Your task to perform on an android device: turn off sleep mode Image 0: 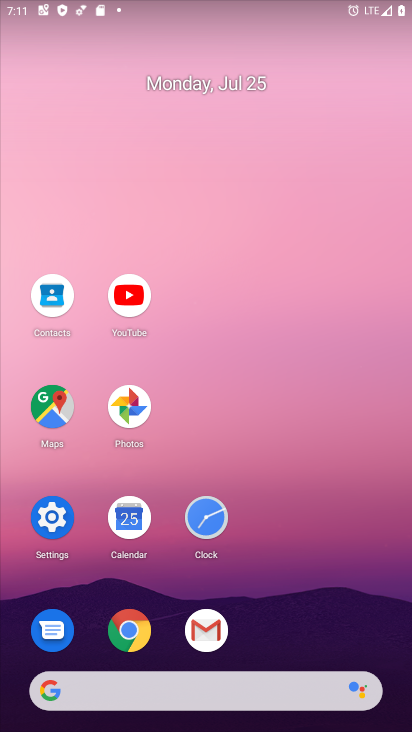
Step 0: click (44, 511)
Your task to perform on an android device: turn off sleep mode Image 1: 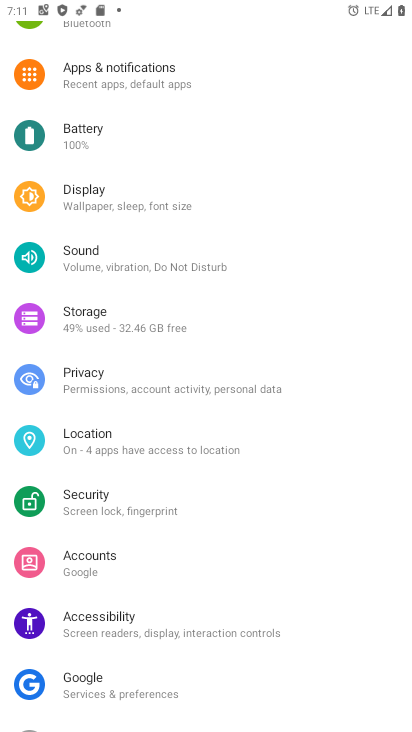
Step 1: click (94, 189)
Your task to perform on an android device: turn off sleep mode Image 2: 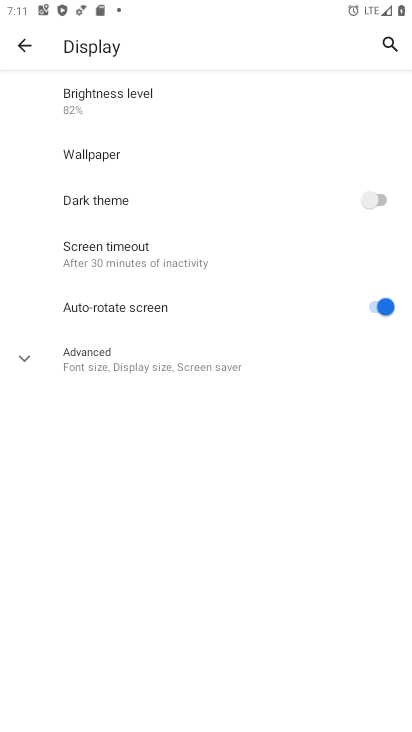
Step 2: task complete